Your task to perform on an android device: turn on the 24-hour format for clock Image 0: 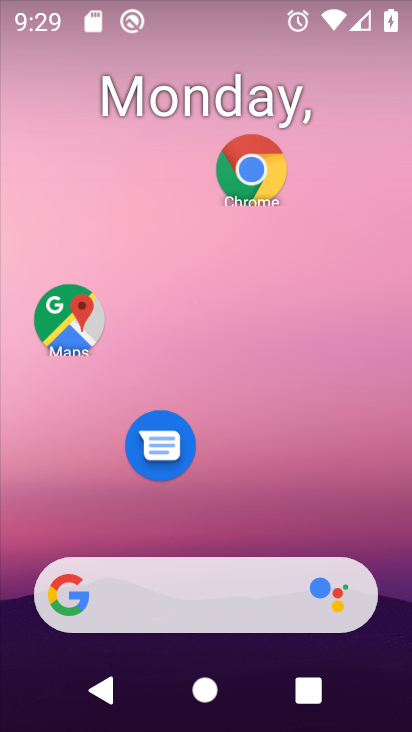
Step 0: press home button
Your task to perform on an android device: turn on the 24-hour format for clock Image 1: 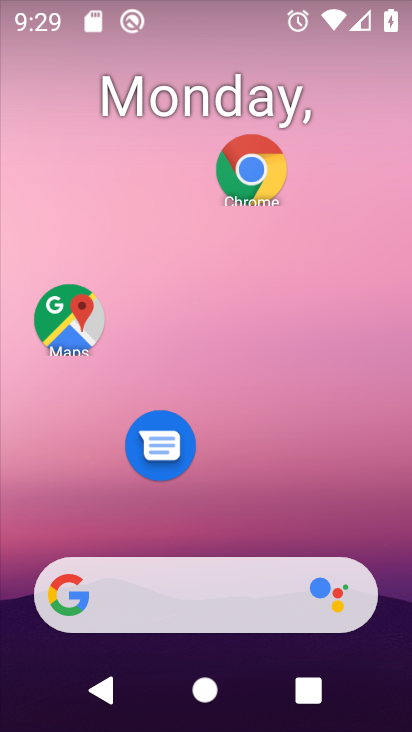
Step 1: drag from (220, 539) to (239, 98)
Your task to perform on an android device: turn on the 24-hour format for clock Image 2: 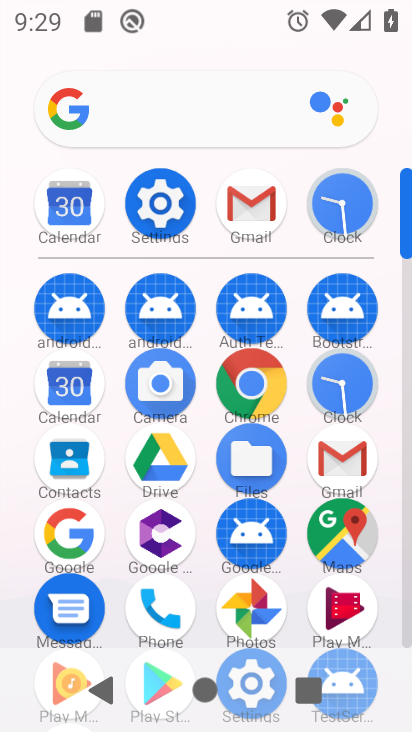
Step 2: click (340, 377)
Your task to perform on an android device: turn on the 24-hour format for clock Image 3: 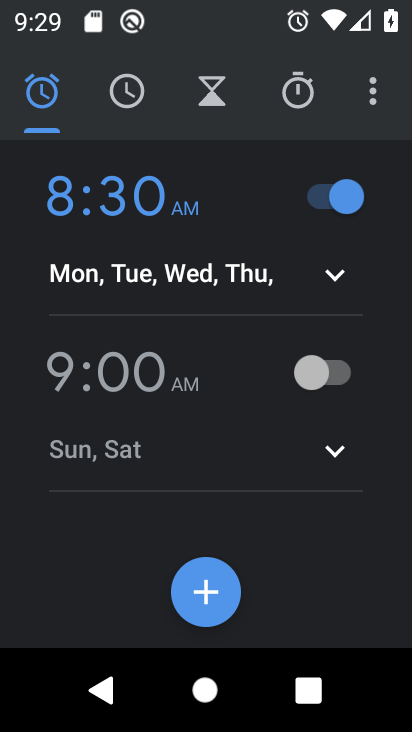
Step 3: click (371, 85)
Your task to perform on an android device: turn on the 24-hour format for clock Image 4: 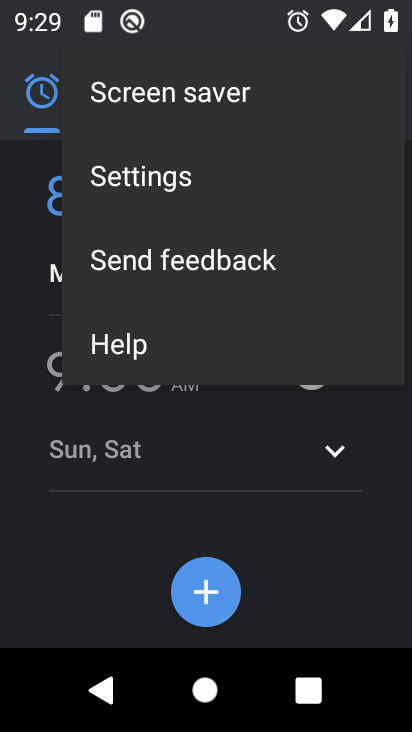
Step 4: click (207, 176)
Your task to perform on an android device: turn on the 24-hour format for clock Image 5: 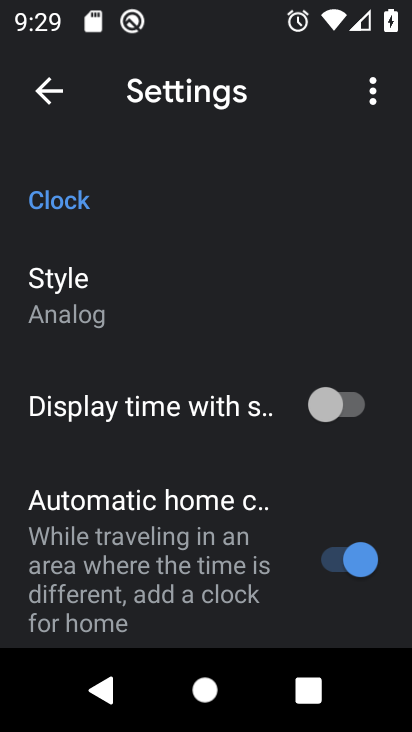
Step 5: drag from (270, 540) to (263, 144)
Your task to perform on an android device: turn on the 24-hour format for clock Image 6: 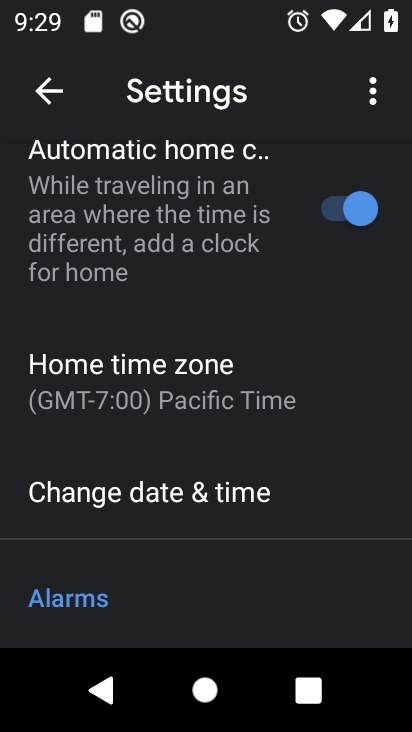
Step 6: click (283, 498)
Your task to perform on an android device: turn on the 24-hour format for clock Image 7: 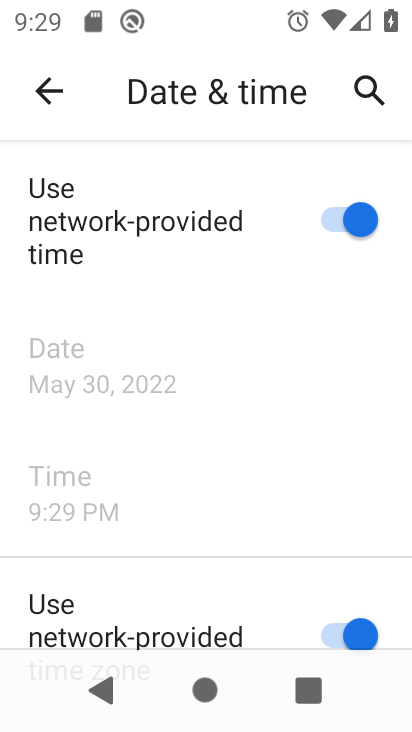
Step 7: drag from (240, 602) to (265, 164)
Your task to perform on an android device: turn on the 24-hour format for clock Image 8: 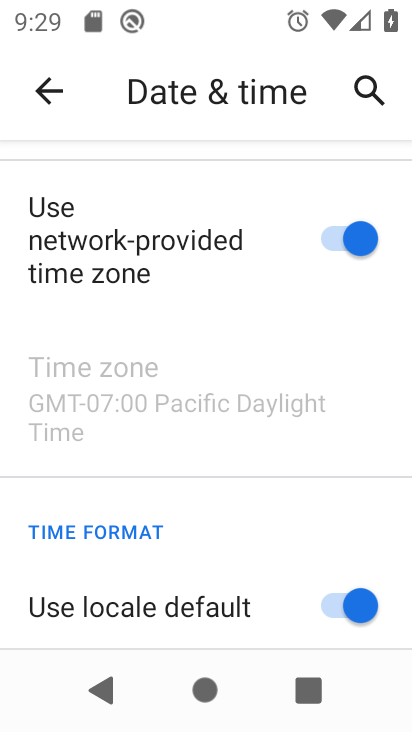
Step 8: drag from (286, 584) to (286, 160)
Your task to perform on an android device: turn on the 24-hour format for clock Image 9: 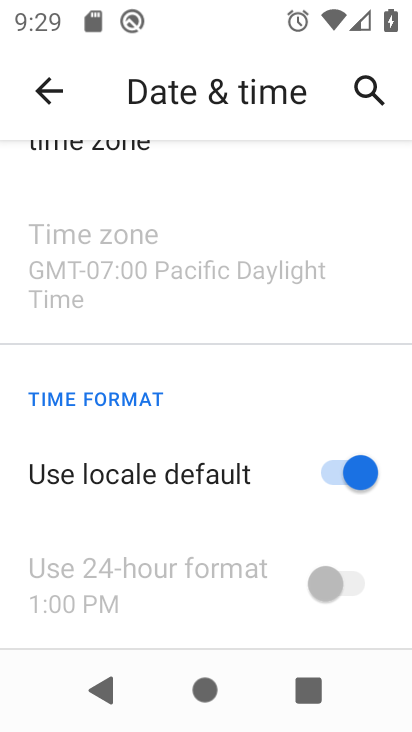
Step 9: click (332, 470)
Your task to perform on an android device: turn on the 24-hour format for clock Image 10: 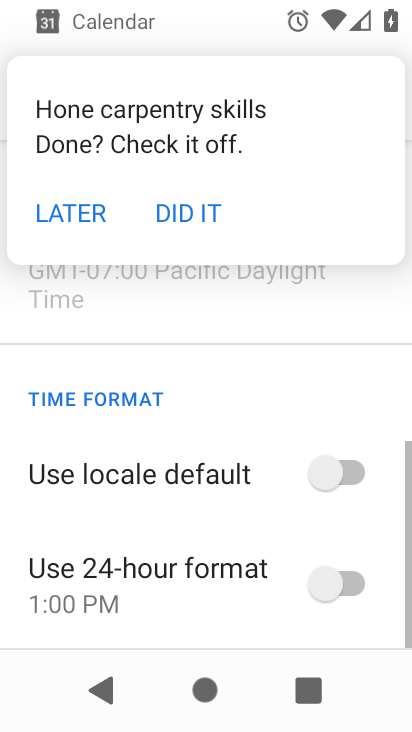
Step 10: click (349, 580)
Your task to perform on an android device: turn on the 24-hour format for clock Image 11: 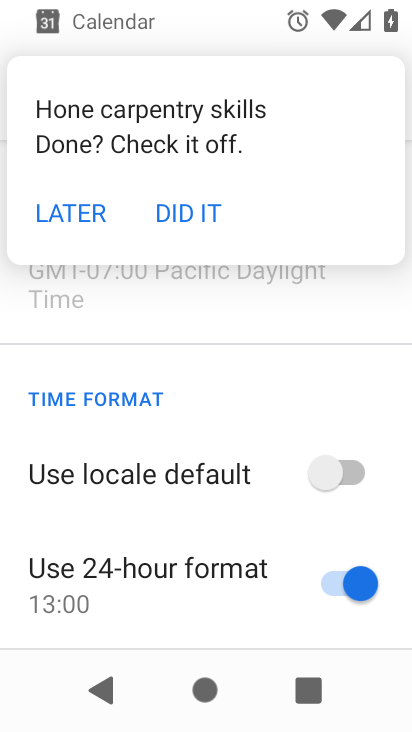
Step 11: click (69, 200)
Your task to perform on an android device: turn on the 24-hour format for clock Image 12: 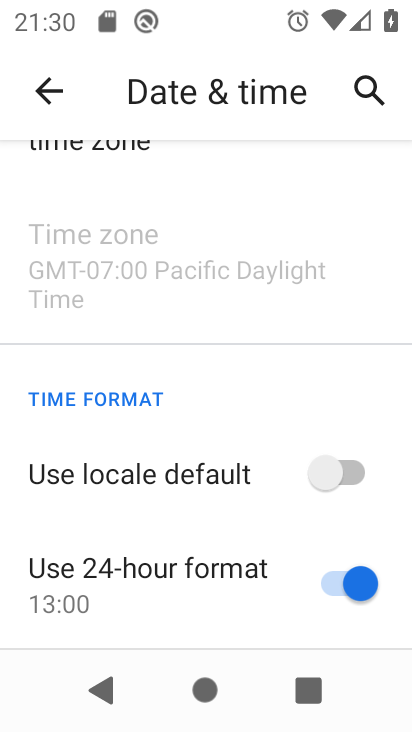
Step 12: task complete